Your task to perform on an android device: Open Chrome and go to settings Image 0: 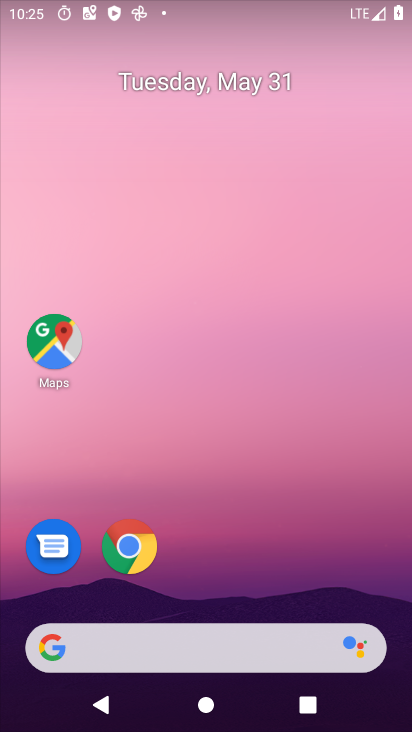
Step 0: click (142, 538)
Your task to perform on an android device: Open Chrome and go to settings Image 1: 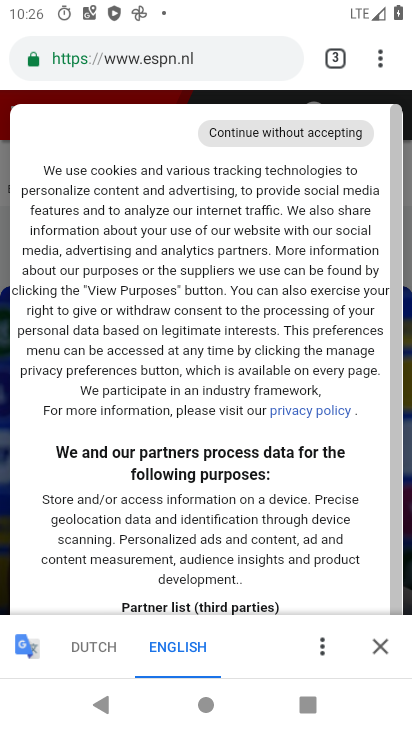
Step 1: click (374, 64)
Your task to perform on an android device: Open Chrome and go to settings Image 2: 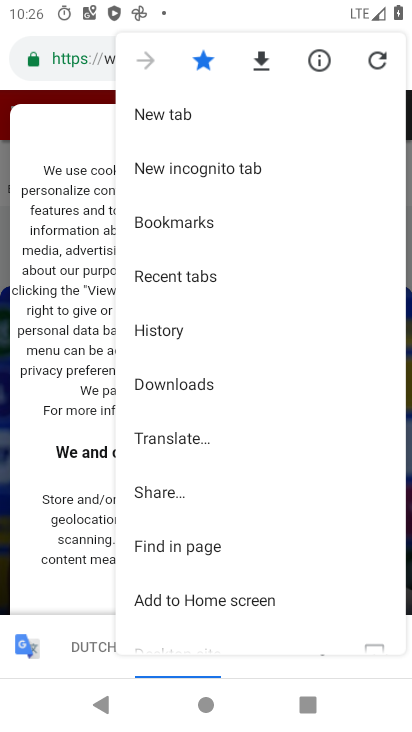
Step 2: drag from (265, 537) to (265, 206)
Your task to perform on an android device: Open Chrome and go to settings Image 3: 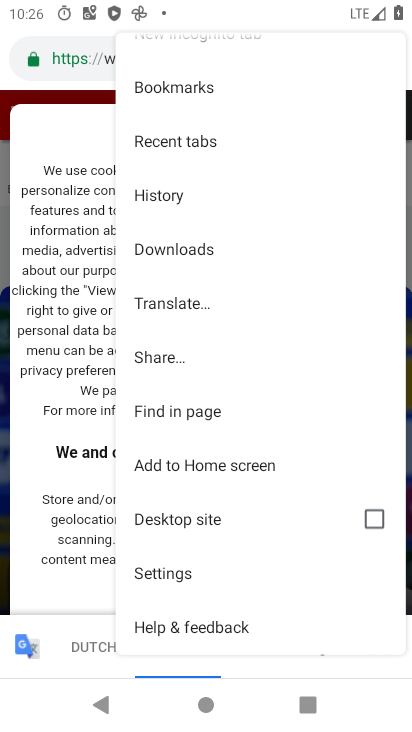
Step 3: click (190, 568)
Your task to perform on an android device: Open Chrome and go to settings Image 4: 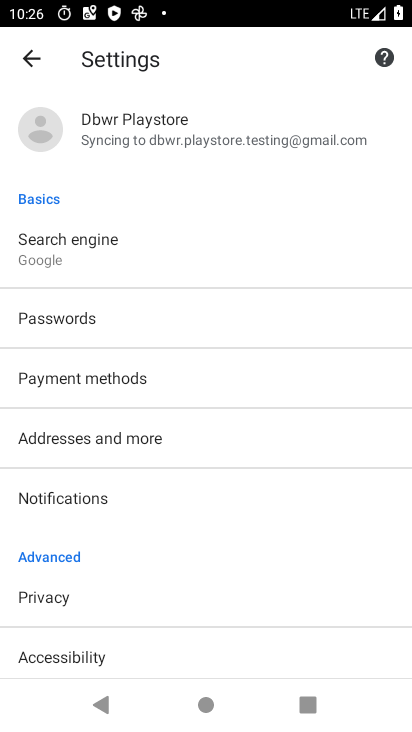
Step 4: task complete